Your task to perform on an android device: turn on bluetooth scan Image 0: 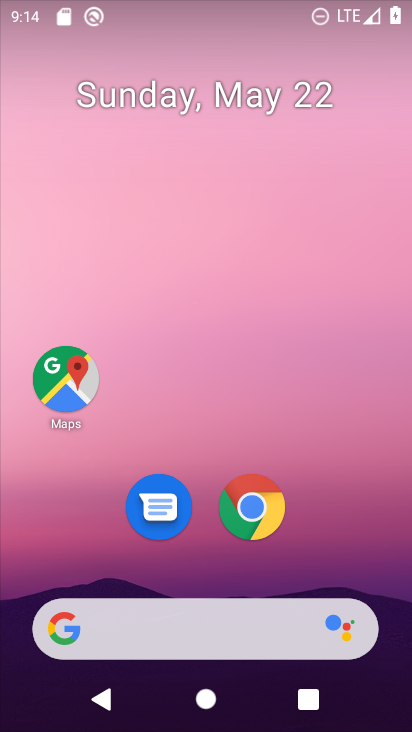
Step 0: drag from (232, 609) to (244, 15)
Your task to perform on an android device: turn on bluetooth scan Image 1: 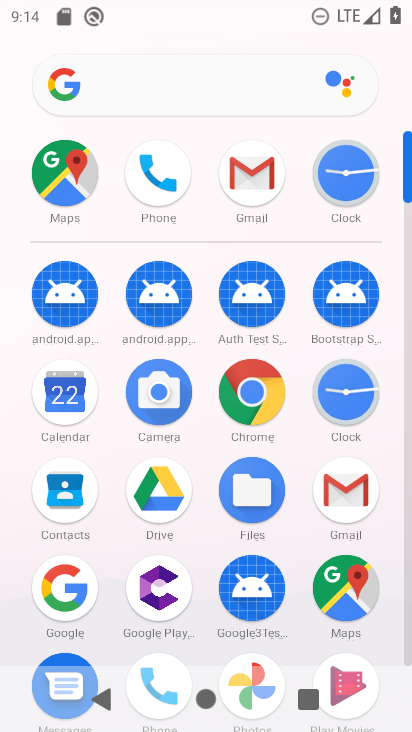
Step 1: drag from (266, 551) to (327, 32)
Your task to perform on an android device: turn on bluetooth scan Image 2: 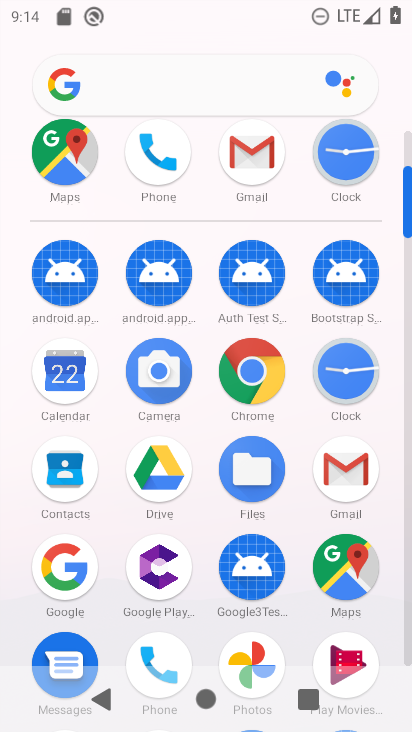
Step 2: drag from (255, 640) to (251, 84)
Your task to perform on an android device: turn on bluetooth scan Image 3: 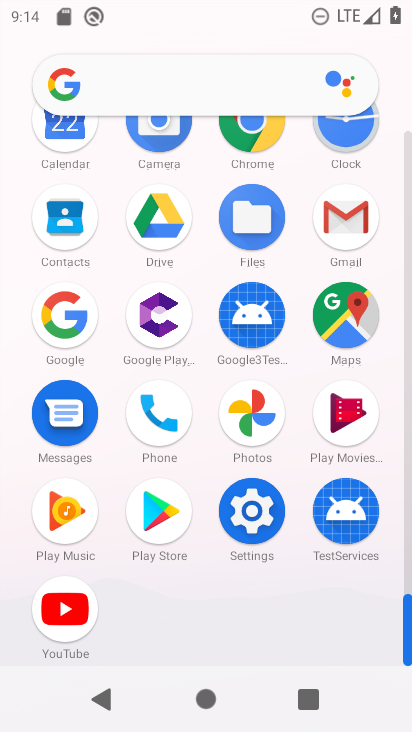
Step 3: click (263, 501)
Your task to perform on an android device: turn on bluetooth scan Image 4: 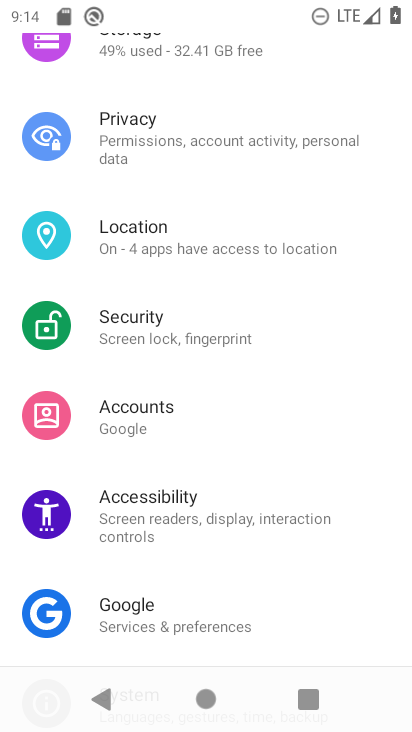
Step 4: click (275, 238)
Your task to perform on an android device: turn on bluetooth scan Image 5: 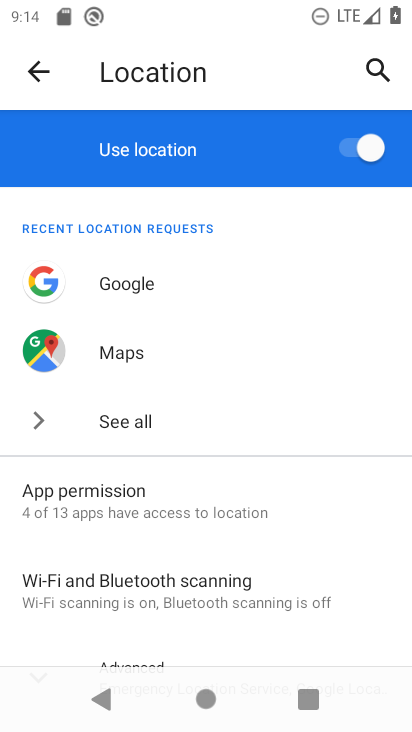
Step 5: click (222, 574)
Your task to perform on an android device: turn on bluetooth scan Image 6: 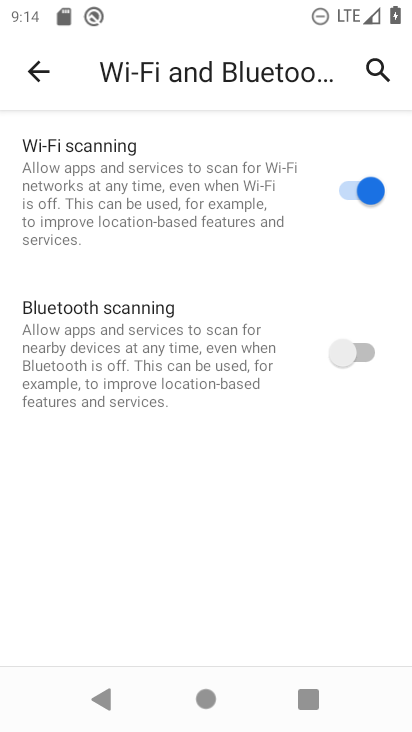
Step 6: click (361, 340)
Your task to perform on an android device: turn on bluetooth scan Image 7: 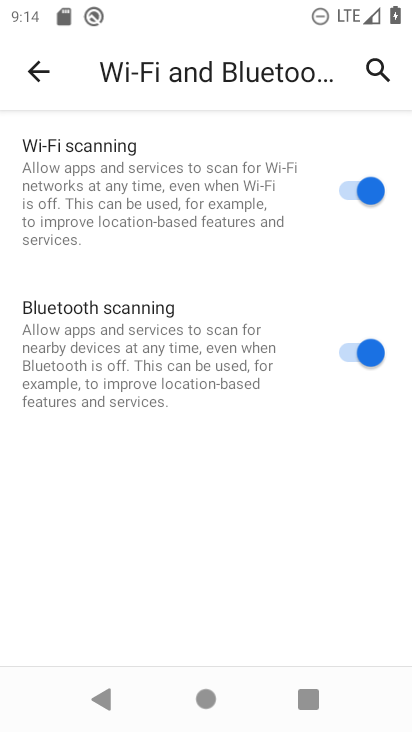
Step 7: task complete